Your task to perform on an android device: Open the stopwatch Image 0: 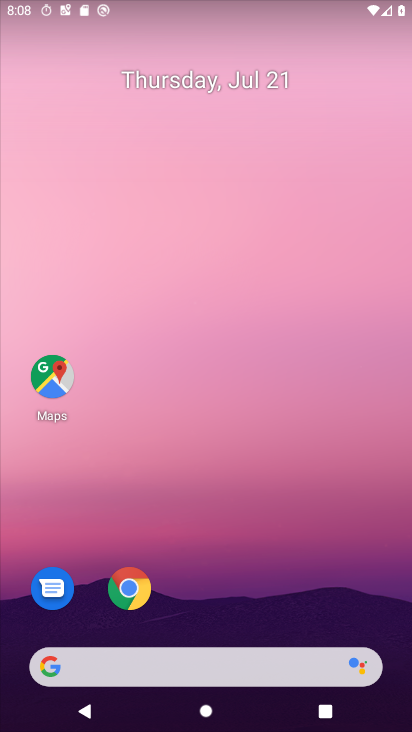
Step 0: drag from (243, 701) to (219, 254)
Your task to perform on an android device: Open the stopwatch Image 1: 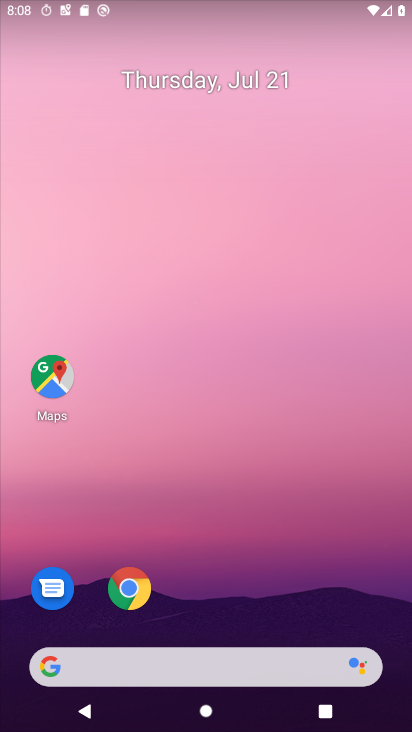
Step 1: drag from (287, 640) to (97, 0)
Your task to perform on an android device: Open the stopwatch Image 2: 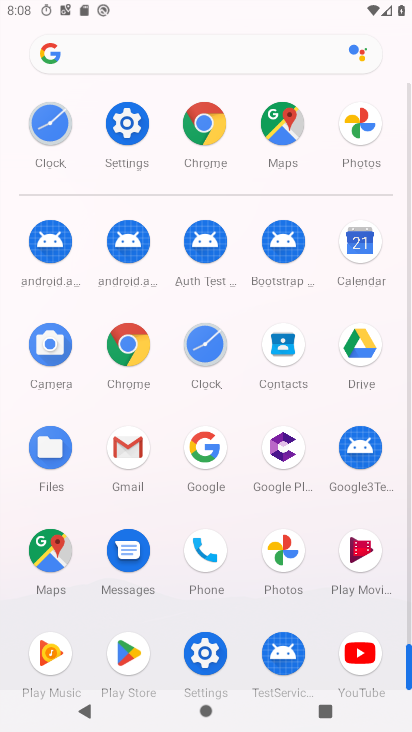
Step 2: click (210, 352)
Your task to perform on an android device: Open the stopwatch Image 3: 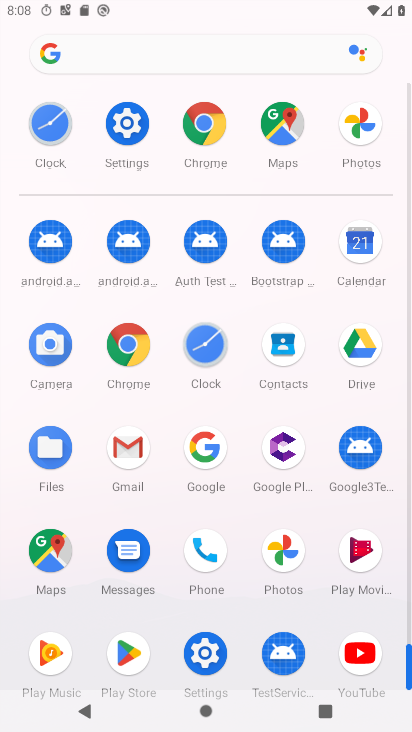
Step 3: click (210, 352)
Your task to perform on an android device: Open the stopwatch Image 4: 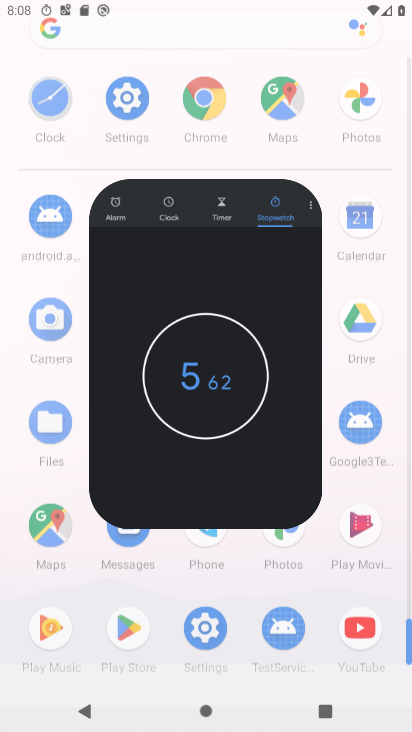
Step 4: click (210, 352)
Your task to perform on an android device: Open the stopwatch Image 5: 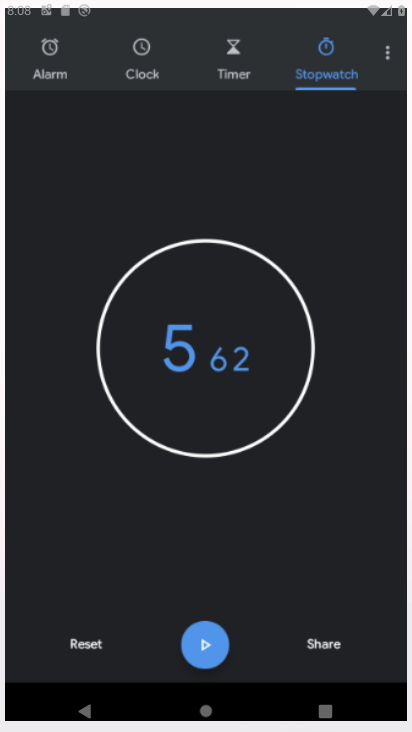
Step 5: click (211, 352)
Your task to perform on an android device: Open the stopwatch Image 6: 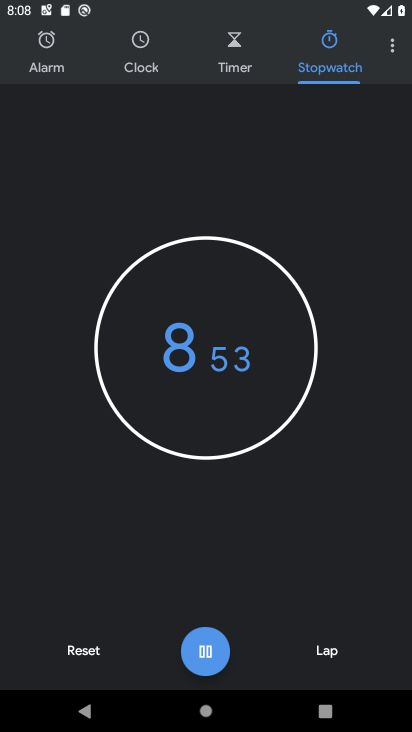
Step 6: click (203, 666)
Your task to perform on an android device: Open the stopwatch Image 7: 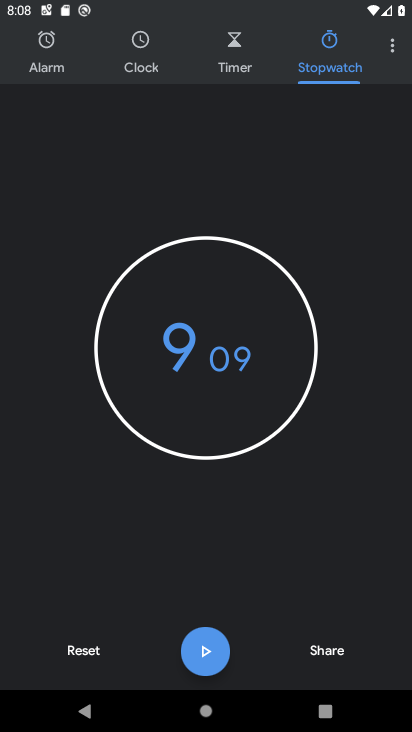
Step 7: task complete